Your task to perform on an android device: Open location settings Image 0: 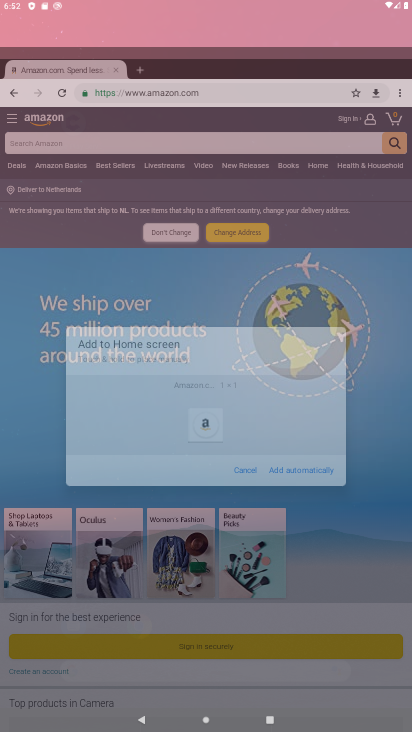
Step 0: press home button
Your task to perform on an android device: Open location settings Image 1: 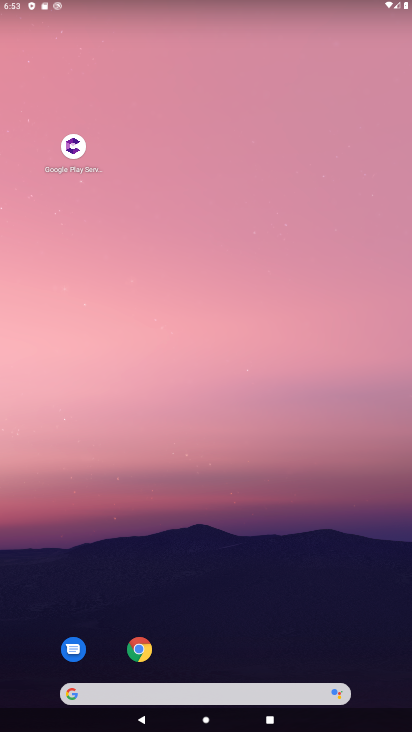
Step 1: drag from (239, 699) to (271, 165)
Your task to perform on an android device: Open location settings Image 2: 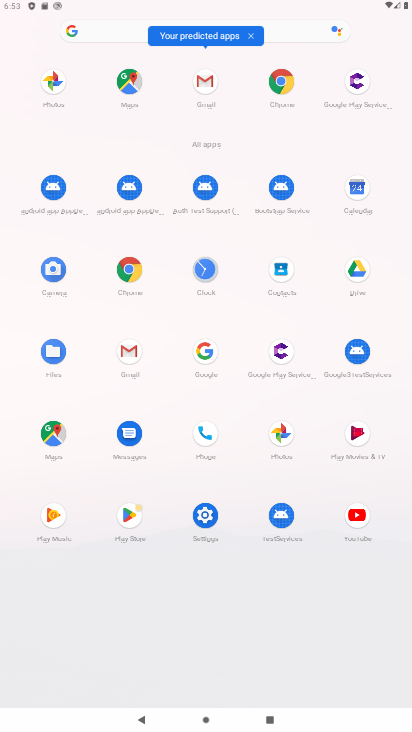
Step 2: click (220, 507)
Your task to perform on an android device: Open location settings Image 3: 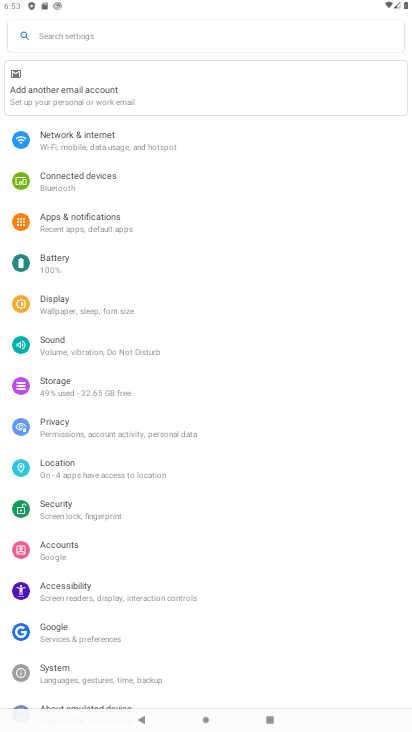
Step 3: click (95, 470)
Your task to perform on an android device: Open location settings Image 4: 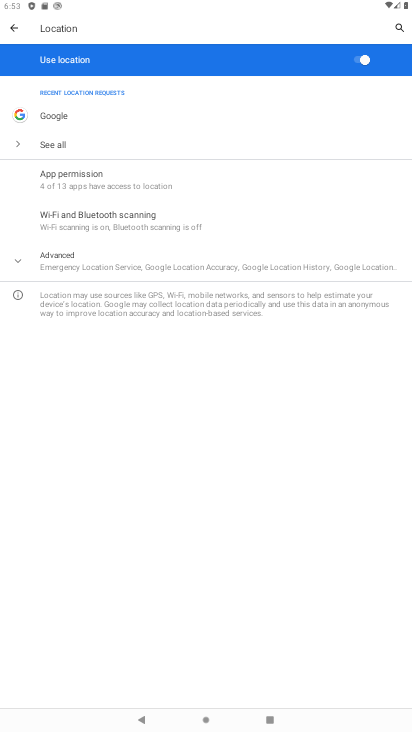
Step 4: task complete